Your task to perform on an android device: Go to accessibility settings Image 0: 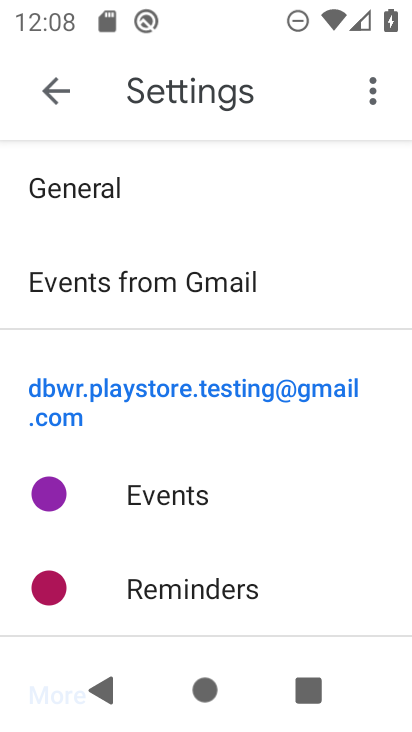
Step 0: press home button
Your task to perform on an android device: Go to accessibility settings Image 1: 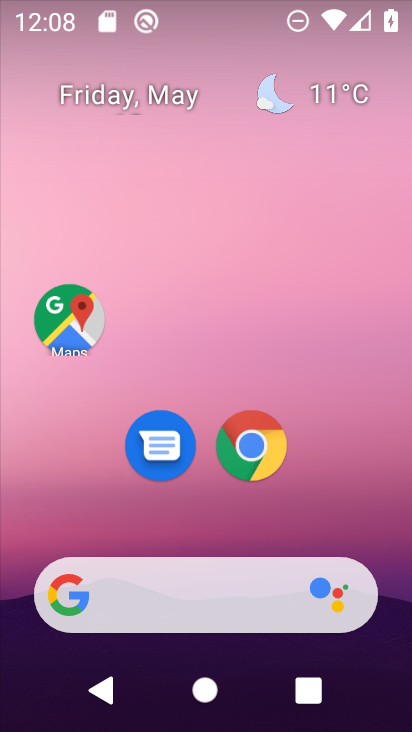
Step 1: drag from (183, 576) to (162, 7)
Your task to perform on an android device: Go to accessibility settings Image 2: 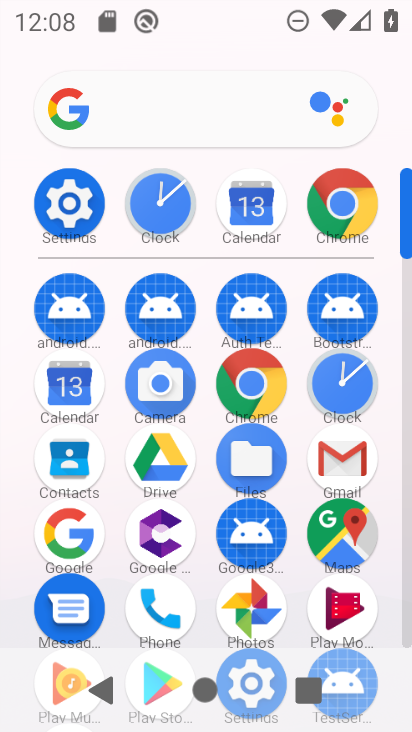
Step 2: click (71, 198)
Your task to perform on an android device: Go to accessibility settings Image 3: 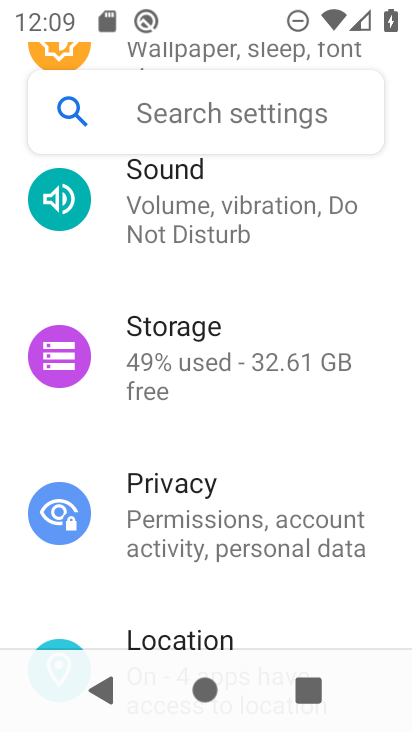
Step 3: drag from (194, 533) to (141, 125)
Your task to perform on an android device: Go to accessibility settings Image 4: 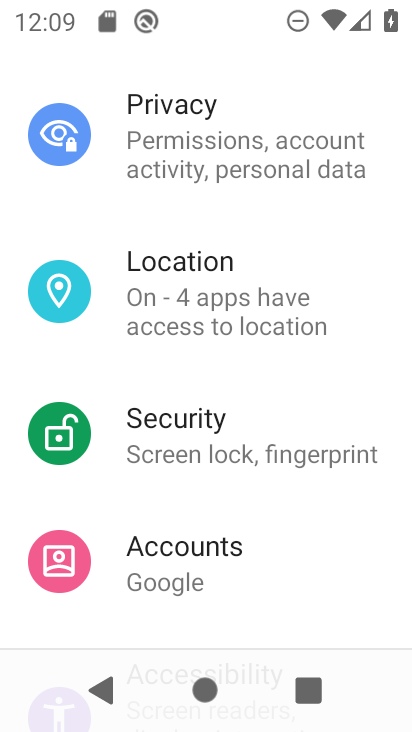
Step 4: drag from (165, 435) to (64, 40)
Your task to perform on an android device: Go to accessibility settings Image 5: 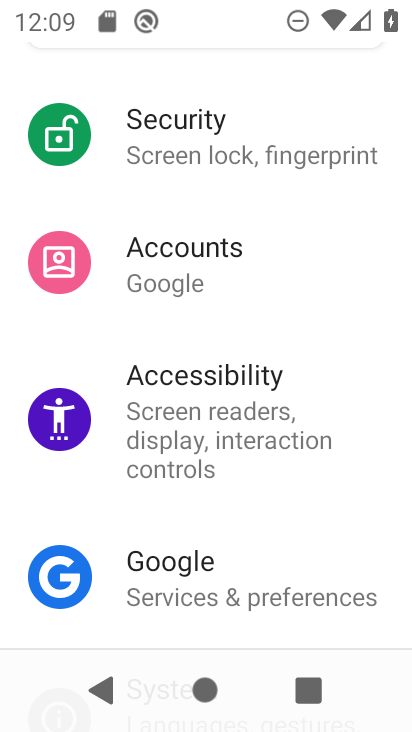
Step 5: click (196, 356)
Your task to perform on an android device: Go to accessibility settings Image 6: 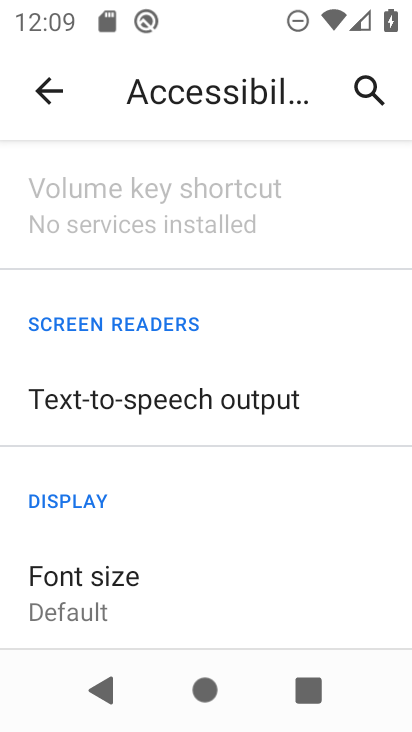
Step 6: task complete